Your task to perform on an android device: Go to settings Image 0: 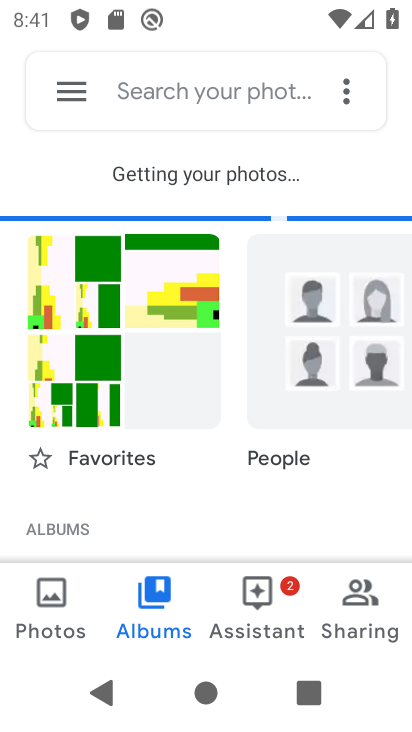
Step 0: press home button
Your task to perform on an android device: Go to settings Image 1: 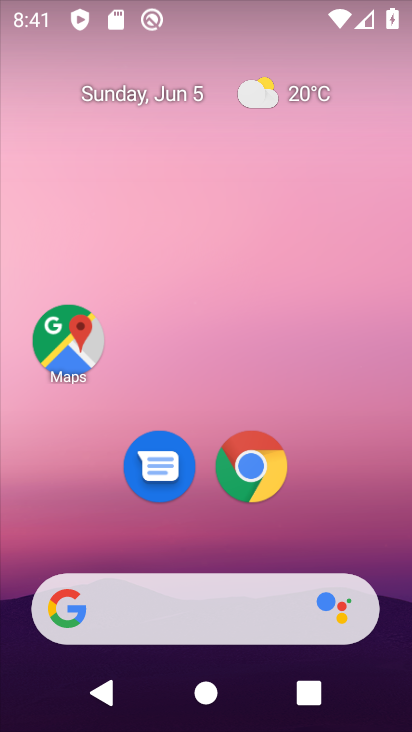
Step 1: drag from (219, 543) to (175, 301)
Your task to perform on an android device: Go to settings Image 2: 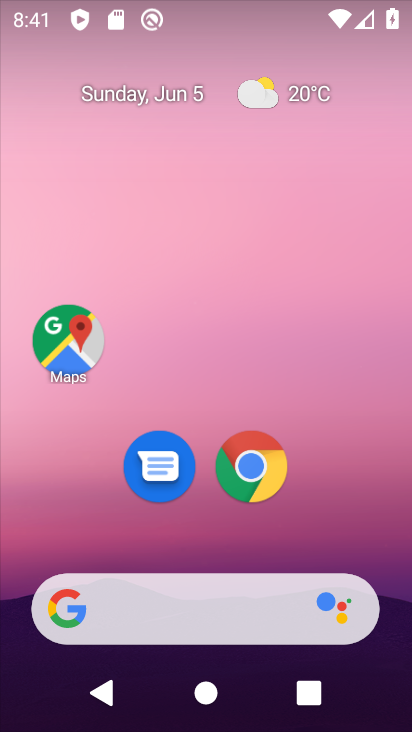
Step 2: drag from (183, 555) to (167, 233)
Your task to perform on an android device: Go to settings Image 3: 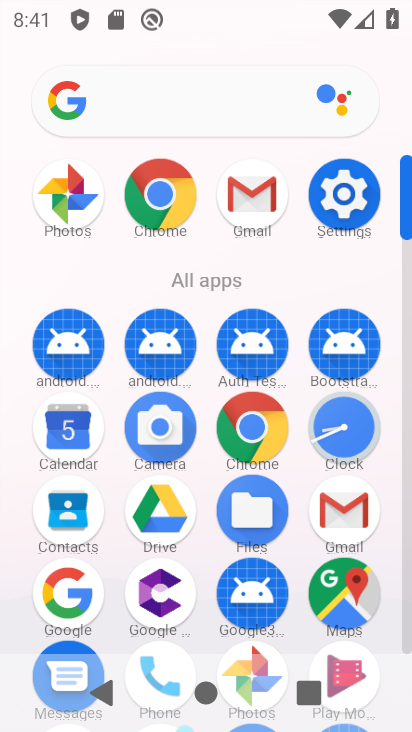
Step 3: click (347, 199)
Your task to perform on an android device: Go to settings Image 4: 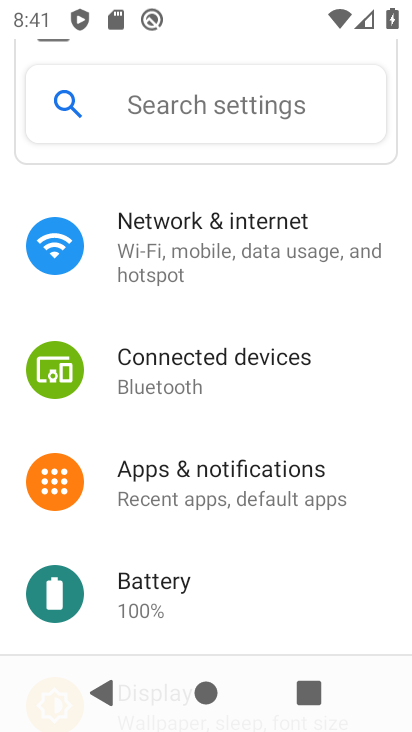
Step 4: task complete